Your task to perform on an android device: Search for "alienware aurora" on amazon, select the first entry, and add it to the cart. Image 0: 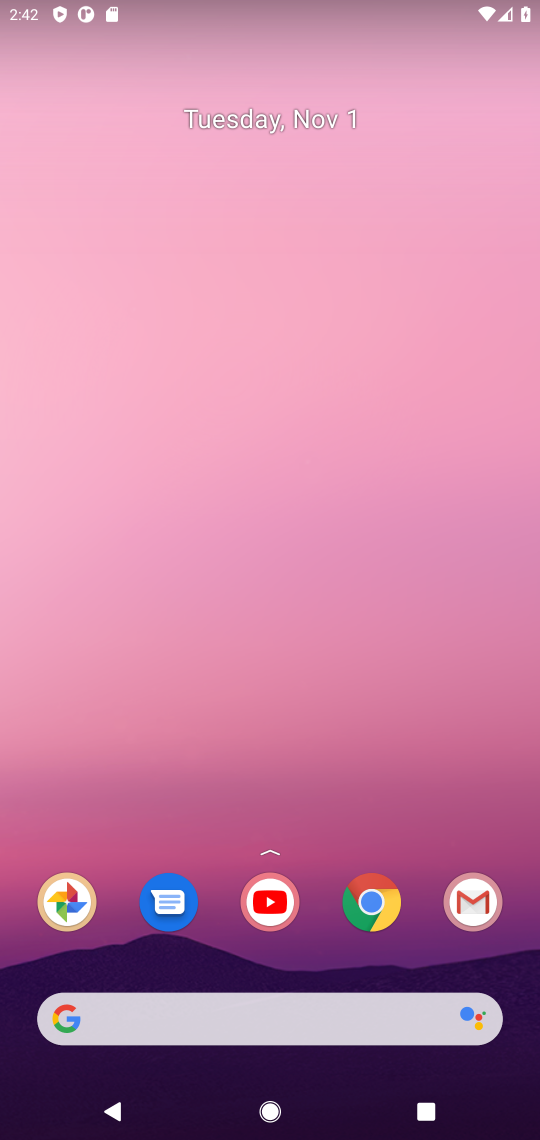
Step 0: click (370, 902)
Your task to perform on an android device: Search for "alienware aurora" on amazon, select the first entry, and add it to the cart. Image 1: 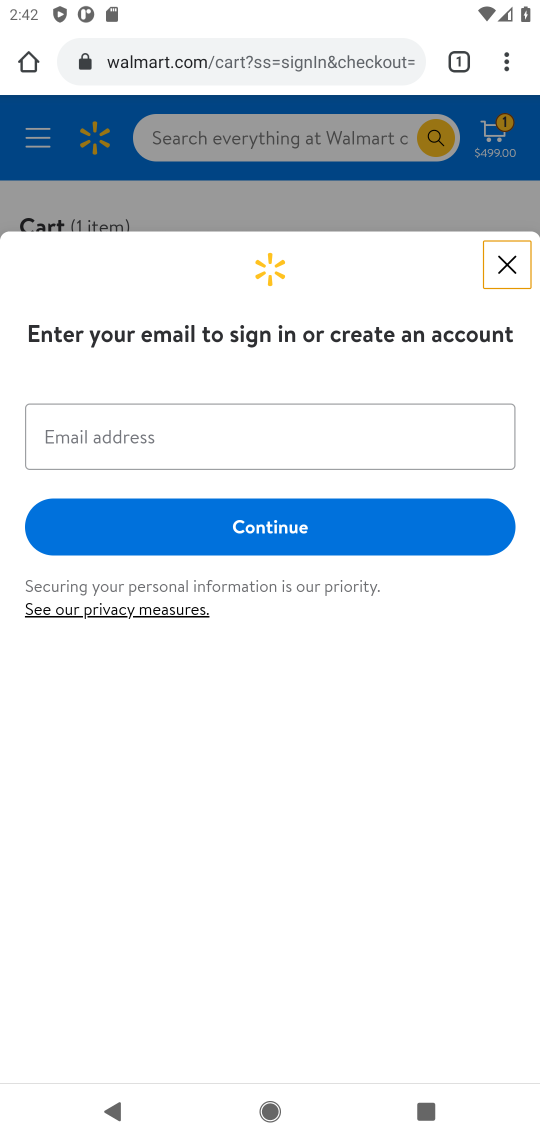
Step 1: click (261, 58)
Your task to perform on an android device: Search for "alienware aurora" on amazon, select the first entry, and add it to the cart. Image 2: 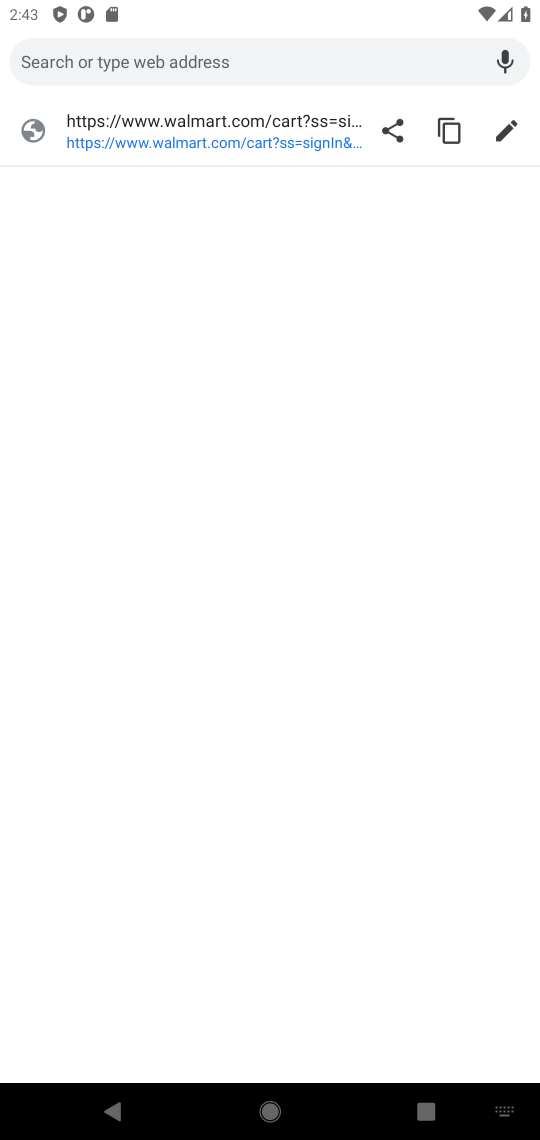
Step 2: type "amazon"
Your task to perform on an android device: Search for "alienware aurora" on amazon, select the first entry, and add it to the cart. Image 3: 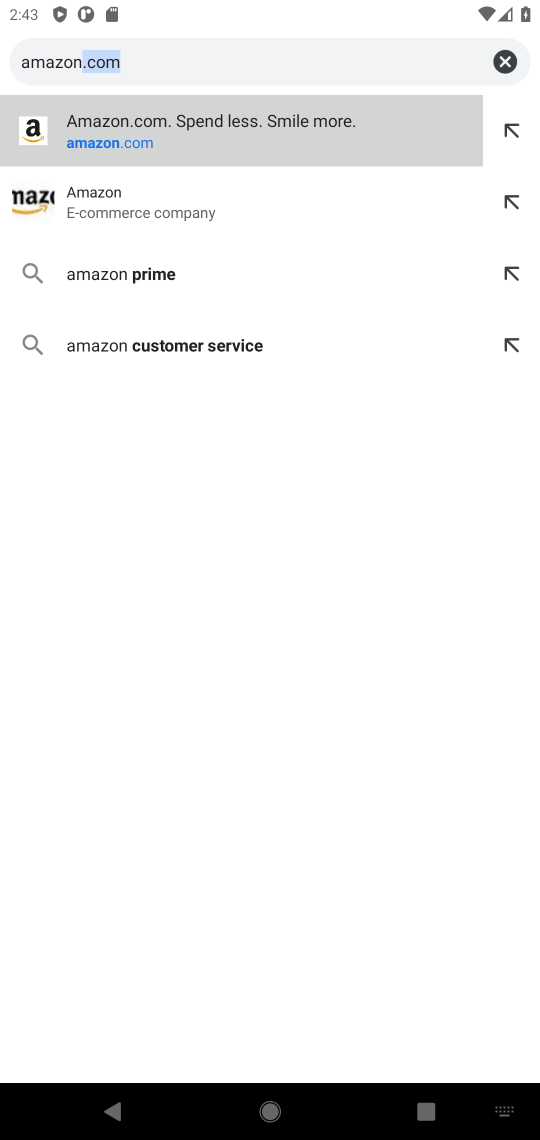
Step 3: click (114, 197)
Your task to perform on an android device: Search for "alienware aurora" on amazon, select the first entry, and add it to the cart. Image 4: 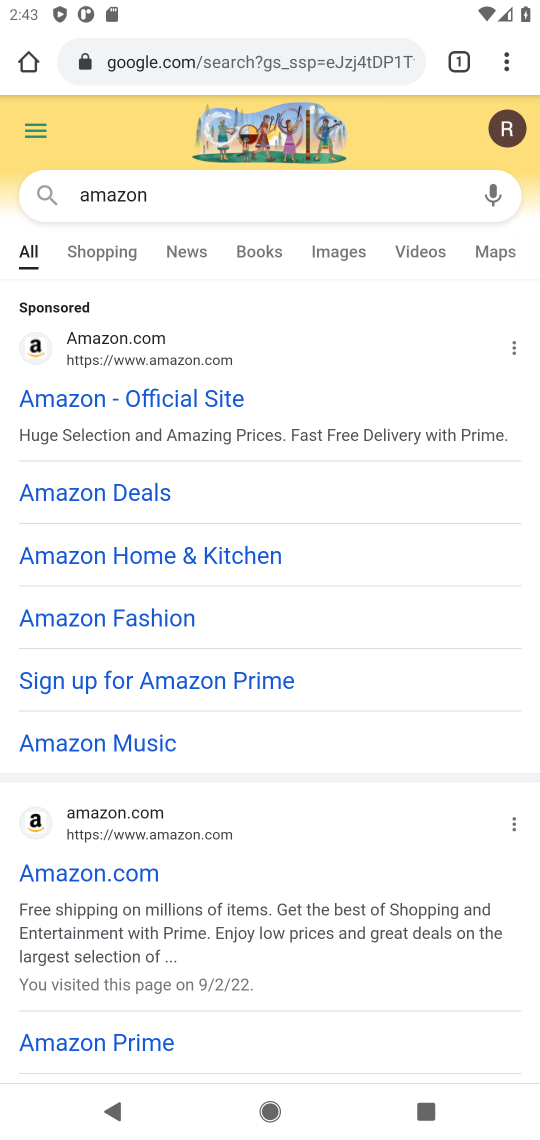
Step 4: click (129, 877)
Your task to perform on an android device: Search for "alienware aurora" on amazon, select the first entry, and add it to the cart. Image 5: 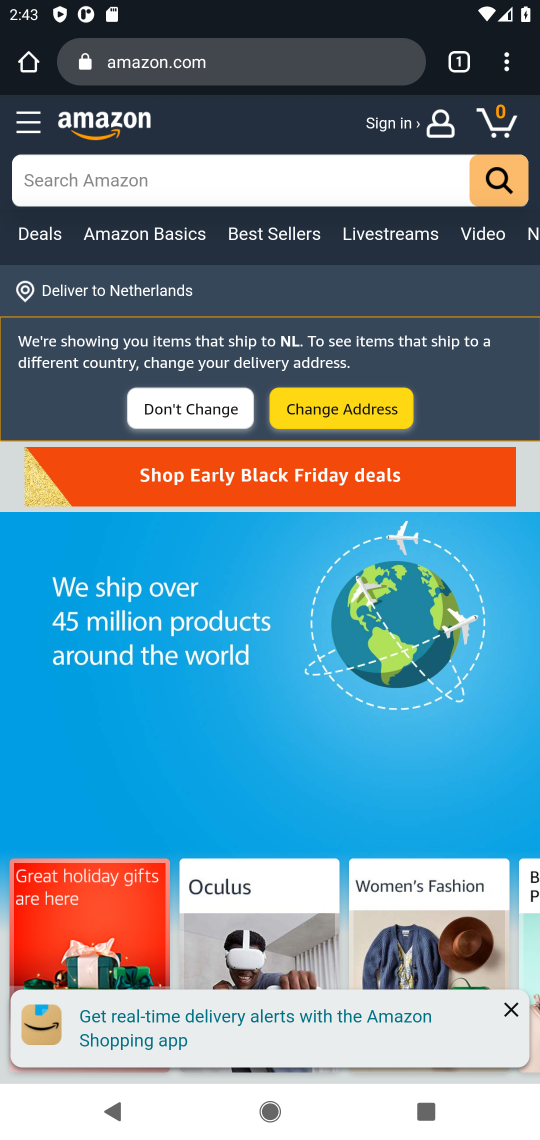
Step 5: click (270, 178)
Your task to perform on an android device: Search for "alienware aurora" on amazon, select the first entry, and add it to the cart. Image 6: 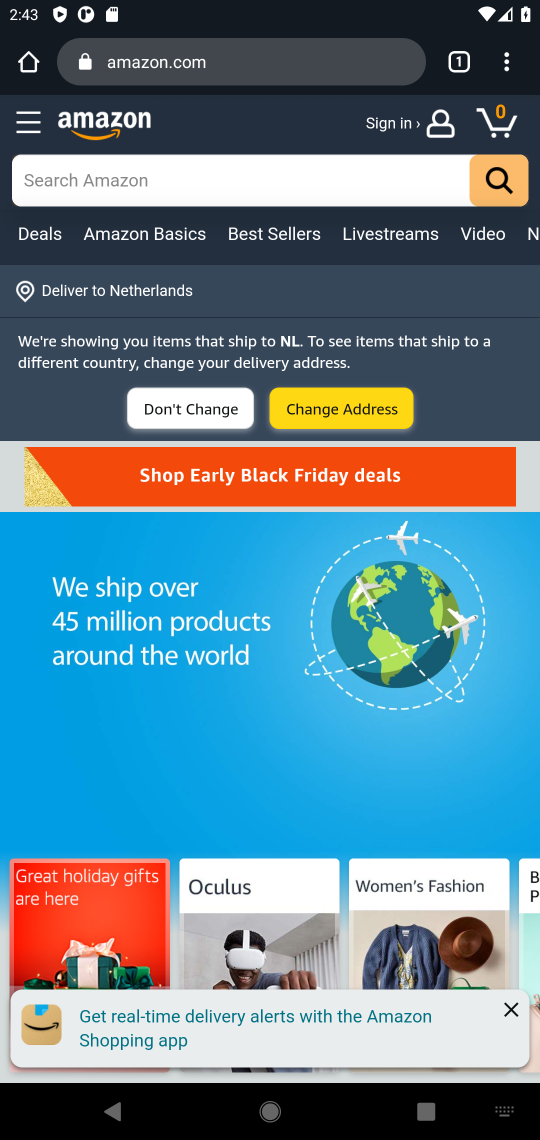
Step 6: type "alienware aurora"
Your task to perform on an android device: Search for "alienware aurora" on amazon, select the first entry, and add it to the cart. Image 7: 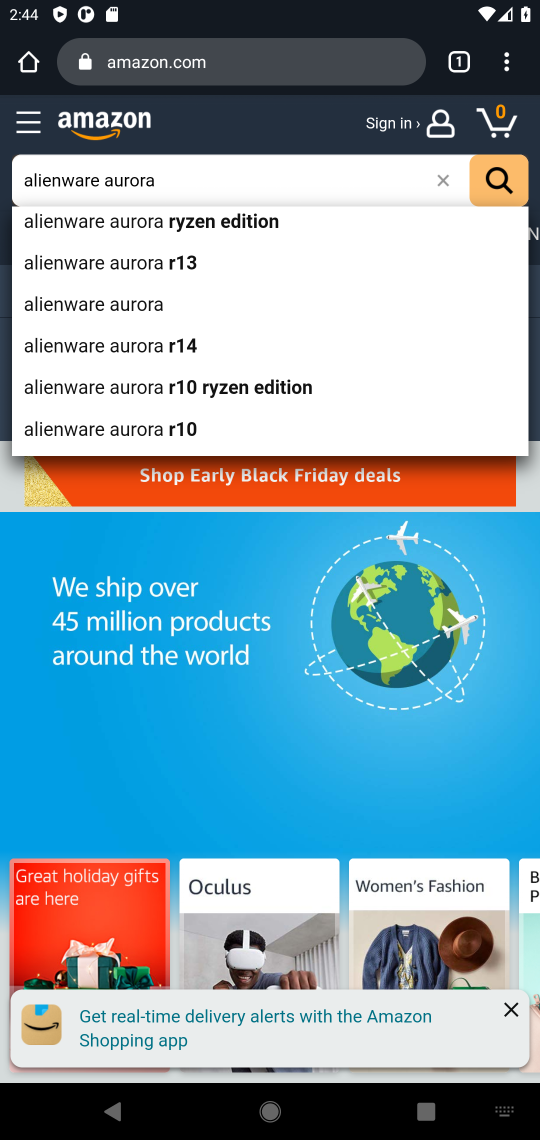
Step 7: click (499, 182)
Your task to perform on an android device: Search for "alienware aurora" on amazon, select the first entry, and add it to the cart. Image 8: 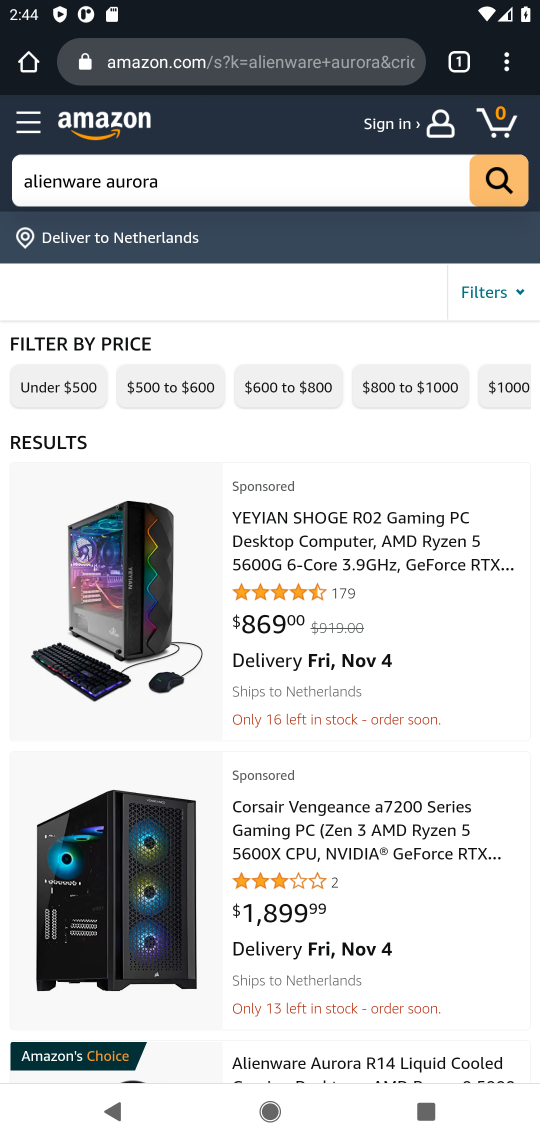
Step 8: click (375, 541)
Your task to perform on an android device: Search for "alienware aurora" on amazon, select the first entry, and add it to the cart. Image 9: 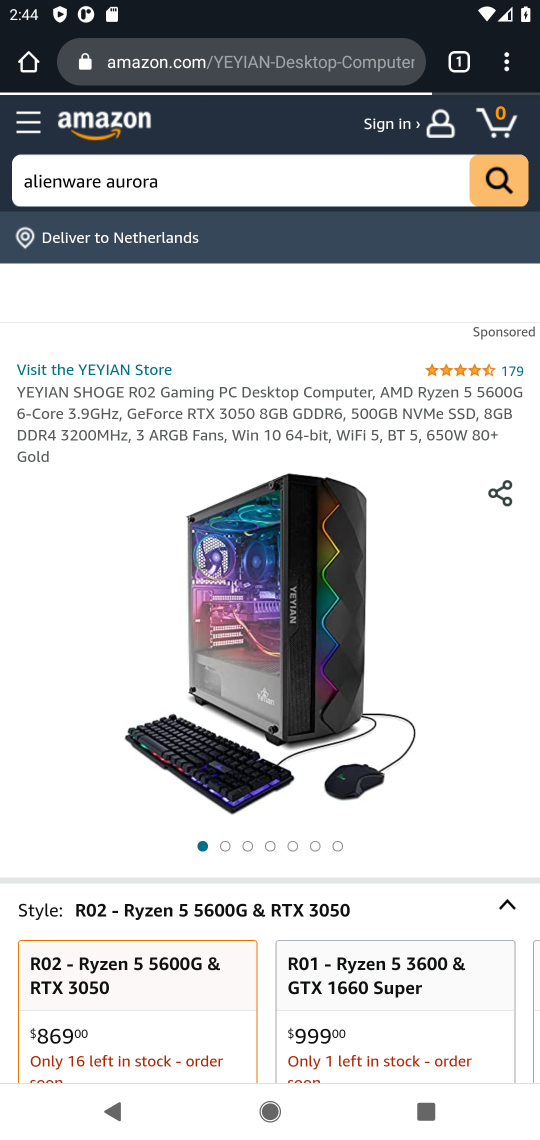
Step 9: drag from (378, 822) to (364, 329)
Your task to perform on an android device: Search for "alienware aurora" on amazon, select the first entry, and add it to the cart. Image 10: 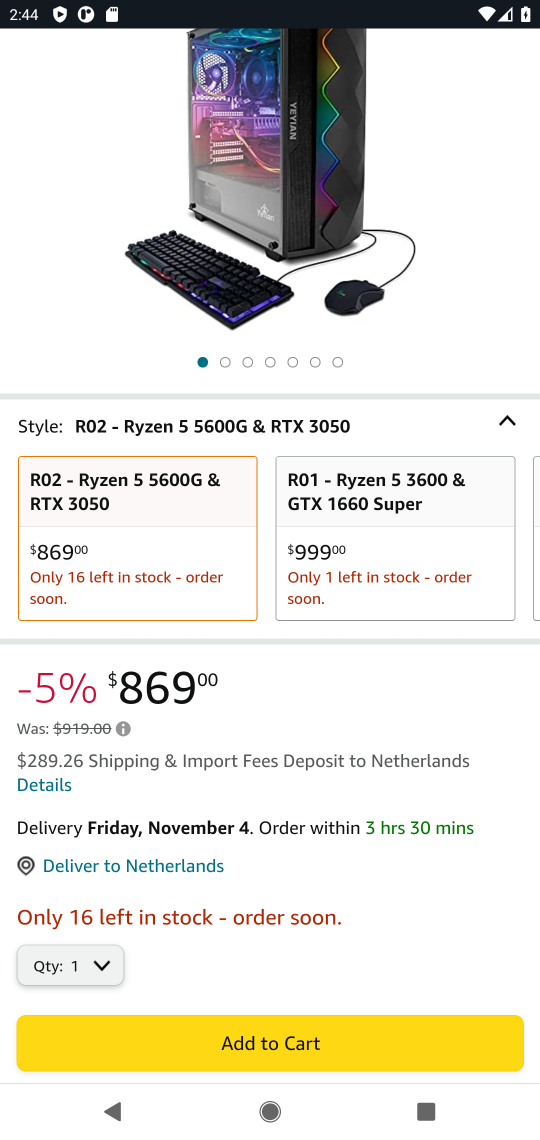
Step 10: click (268, 1045)
Your task to perform on an android device: Search for "alienware aurora" on amazon, select the first entry, and add it to the cart. Image 11: 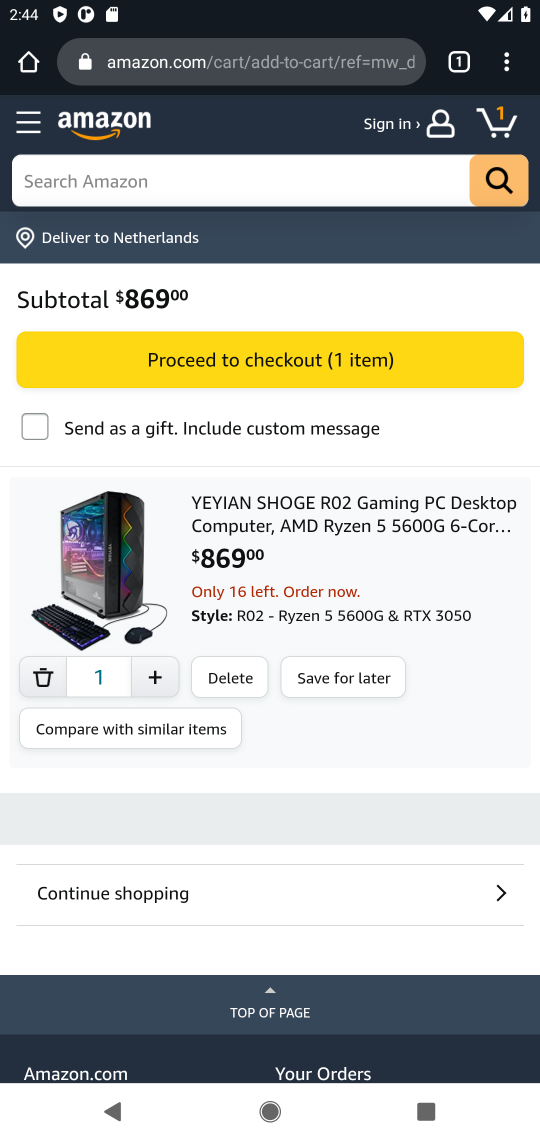
Step 11: click (501, 136)
Your task to perform on an android device: Search for "alienware aurora" on amazon, select the first entry, and add it to the cart. Image 12: 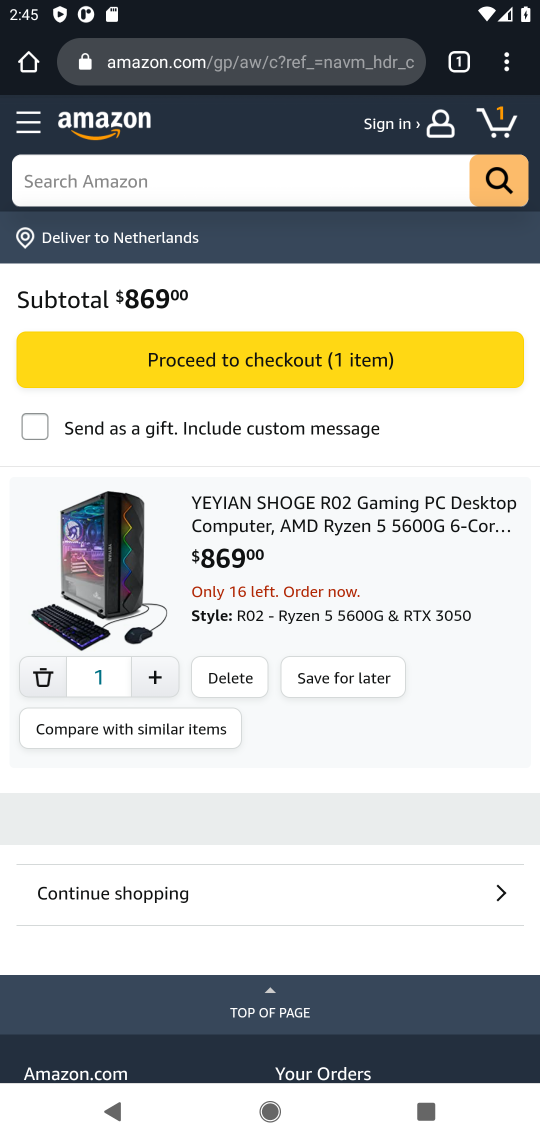
Step 12: task complete